Your task to perform on an android device: turn on improve location accuracy Image 0: 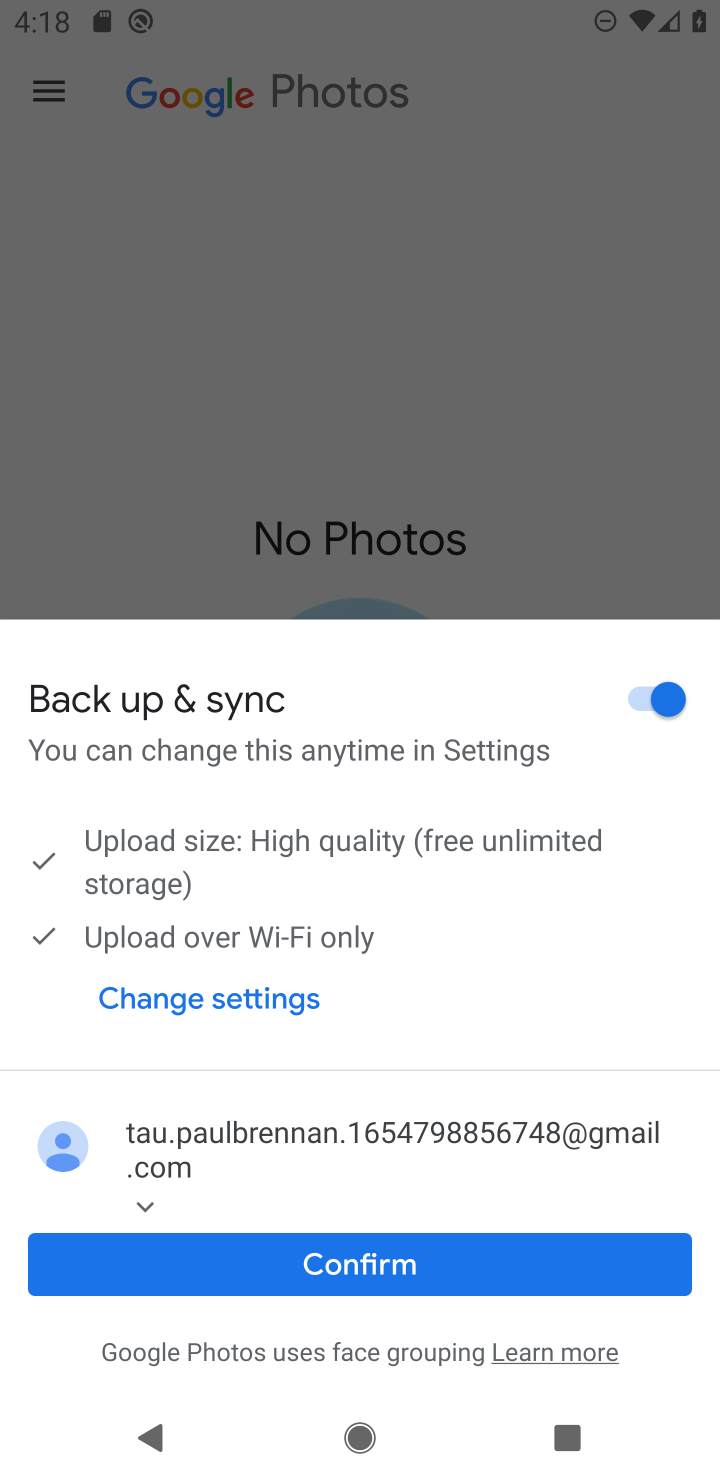
Step 0: press home button
Your task to perform on an android device: turn on improve location accuracy Image 1: 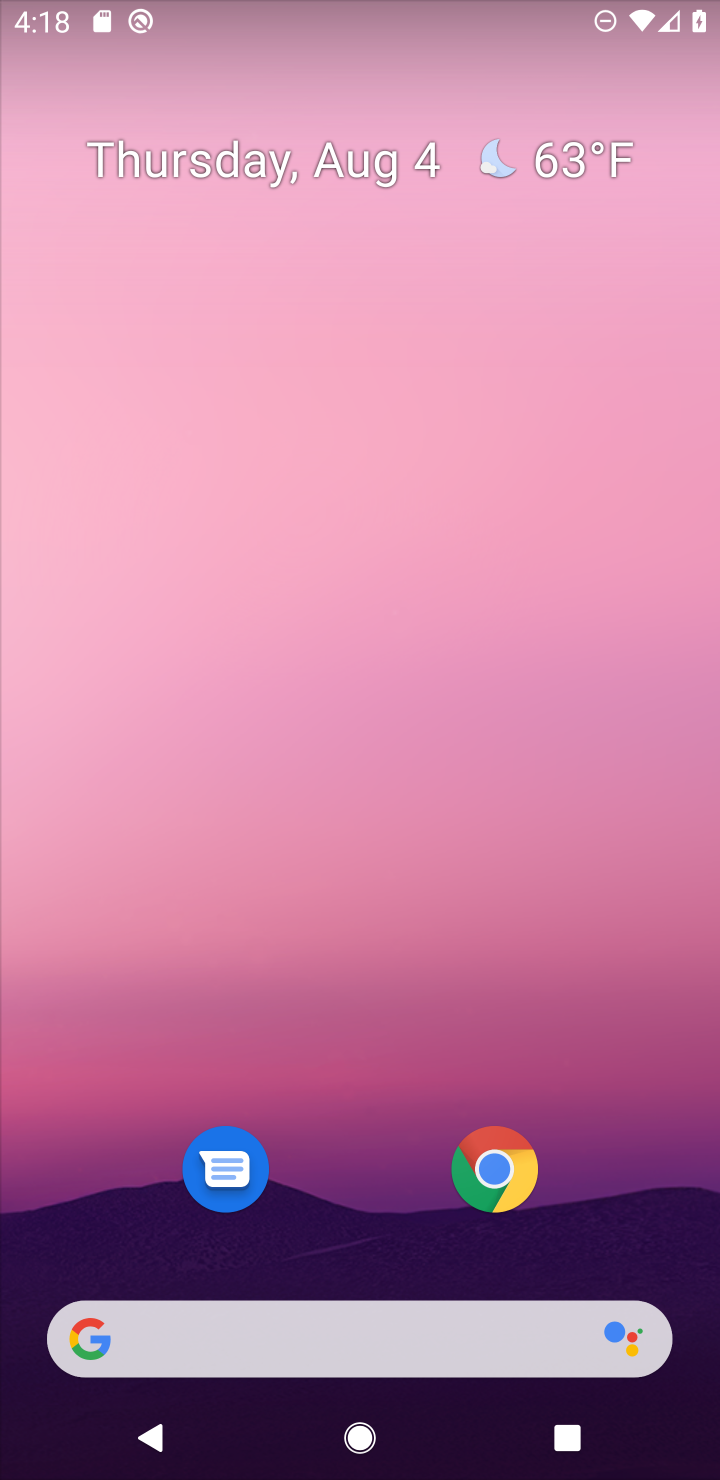
Step 1: drag from (412, 1156) to (469, 177)
Your task to perform on an android device: turn on improve location accuracy Image 2: 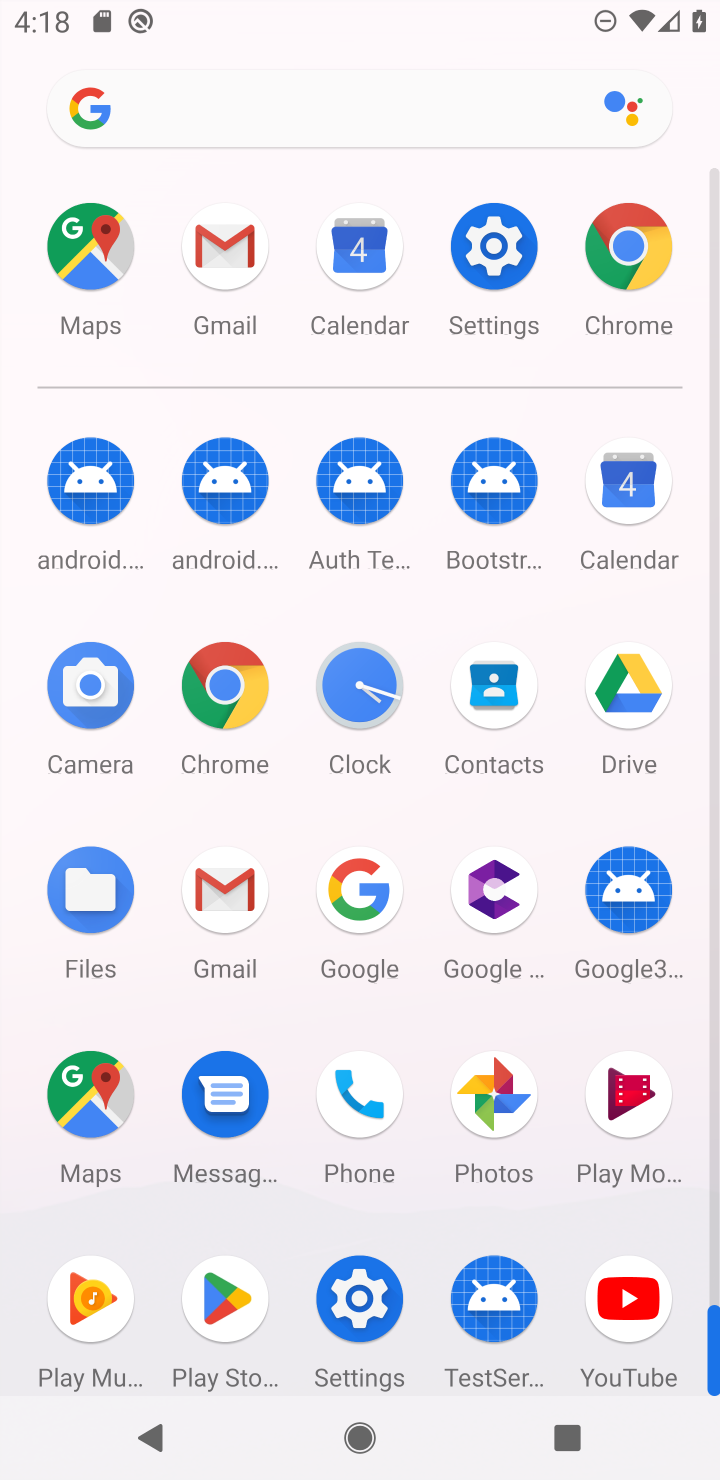
Step 2: click (510, 257)
Your task to perform on an android device: turn on improve location accuracy Image 3: 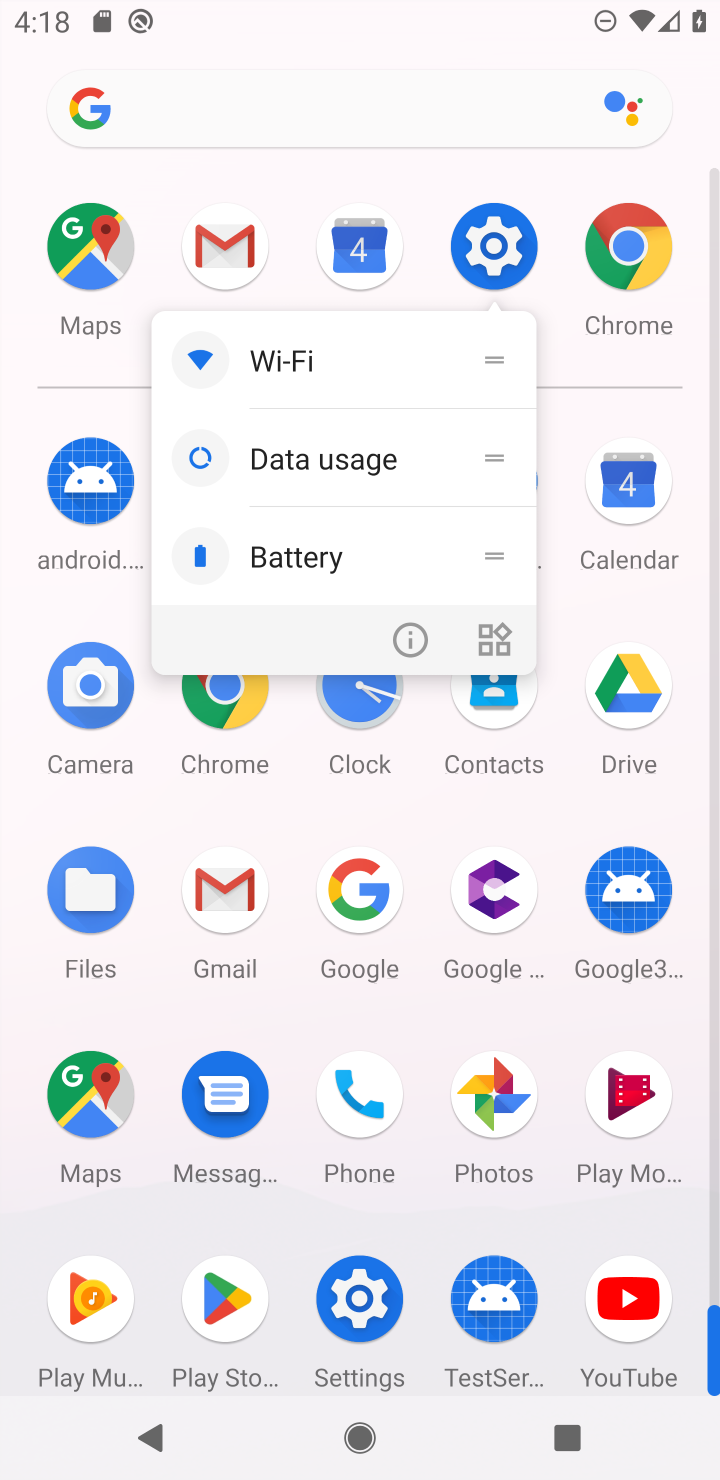
Step 3: click (508, 257)
Your task to perform on an android device: turn on improve location accuracy Image 4: 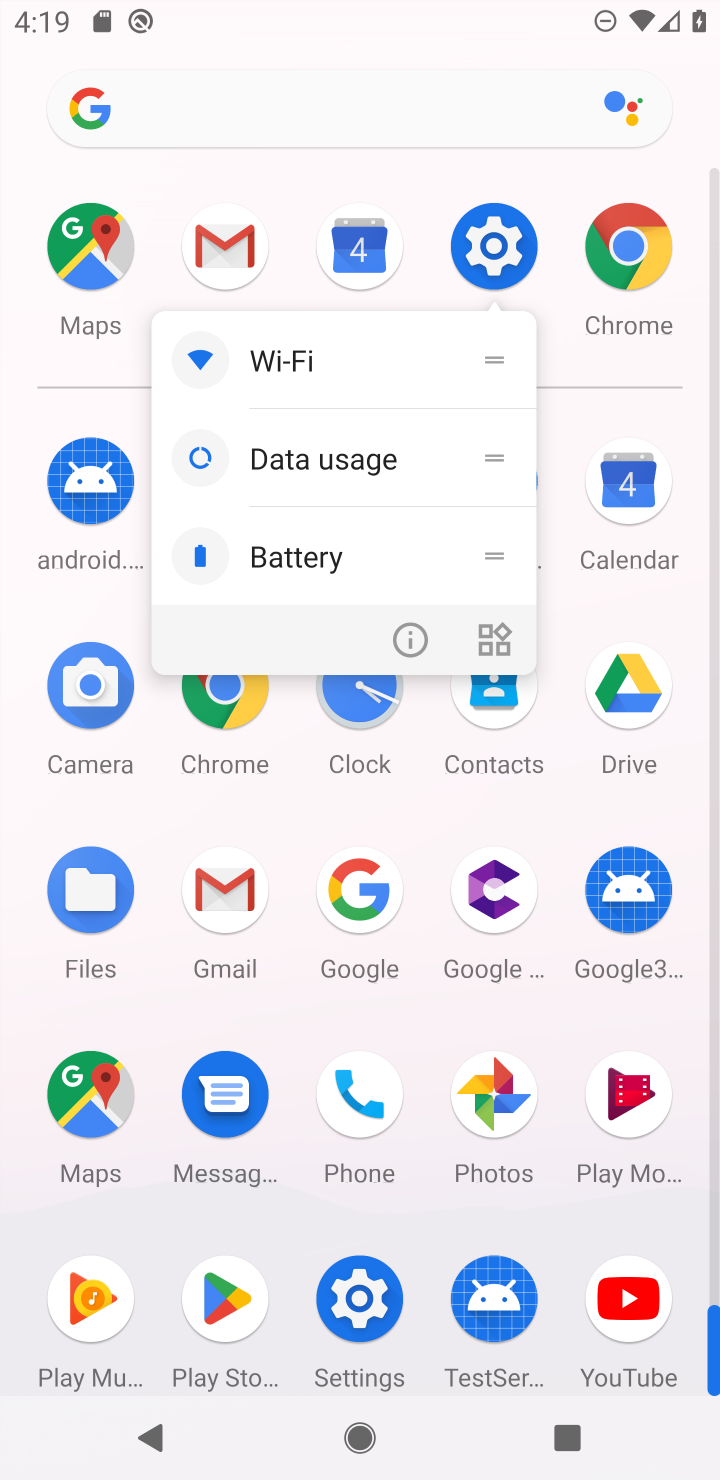
Step 4: click (484, 251)
Your task to perform on an android device: turn on improve location accuracy Image 5: 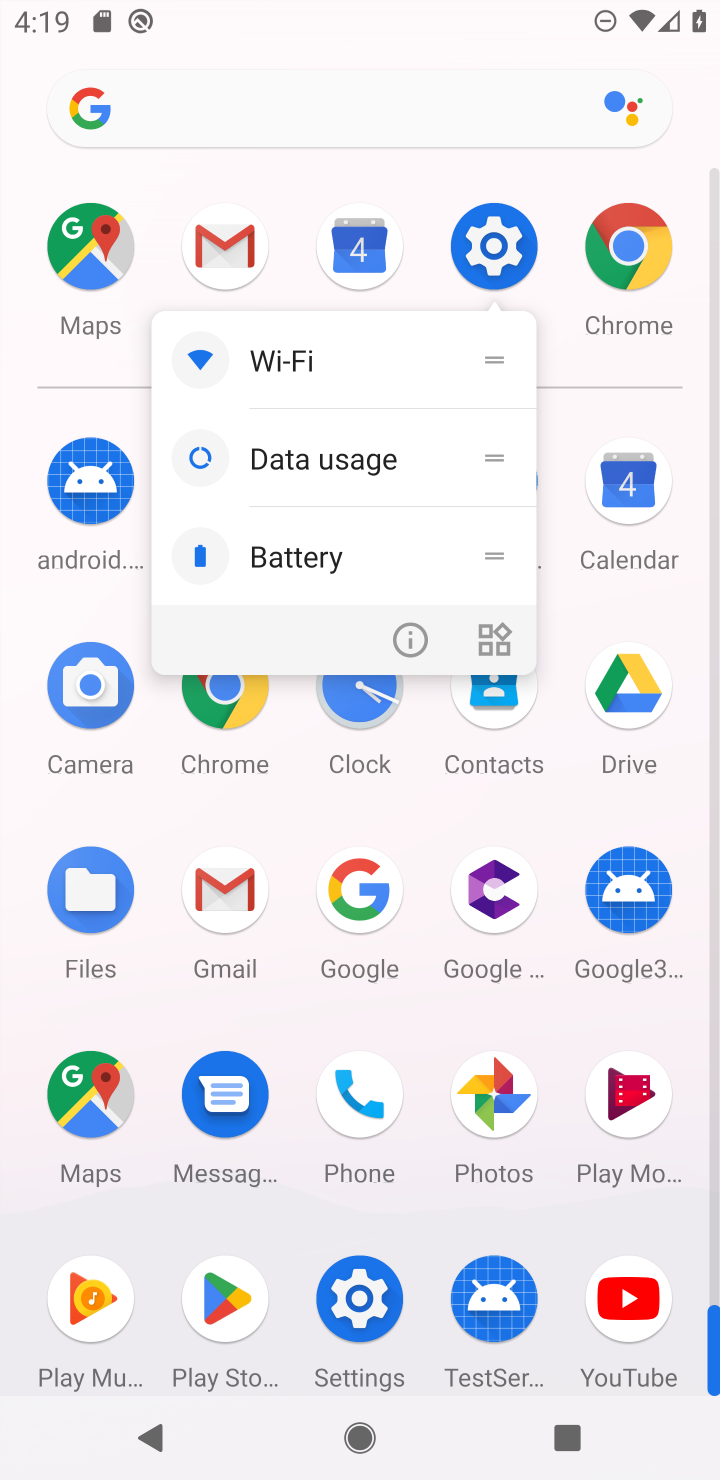
Step 5: click (475, 247)
Your task to perform on an android device: turn on improve location accuracy Image 6: 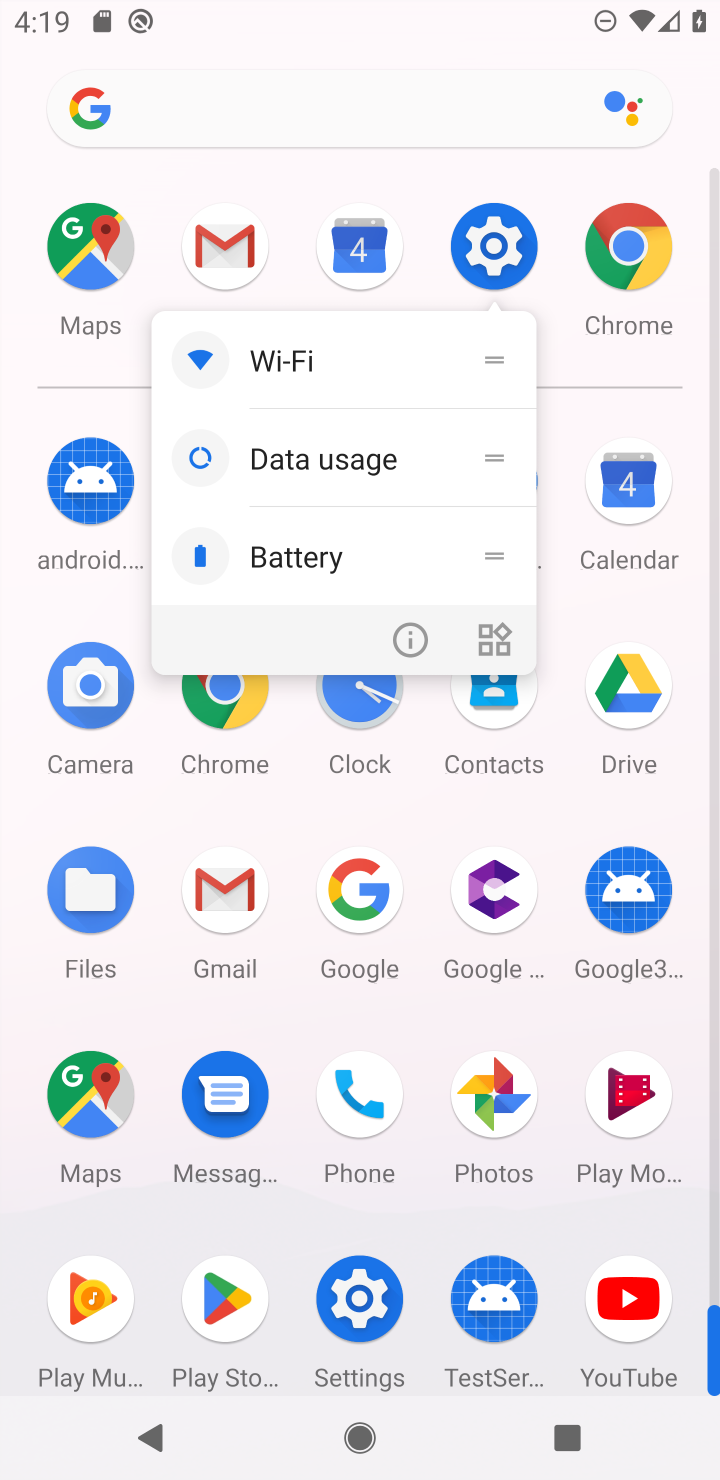
Step 6: click (475, 245)
Your task to perform on an android device: turn on improve location accuracy Image 7: 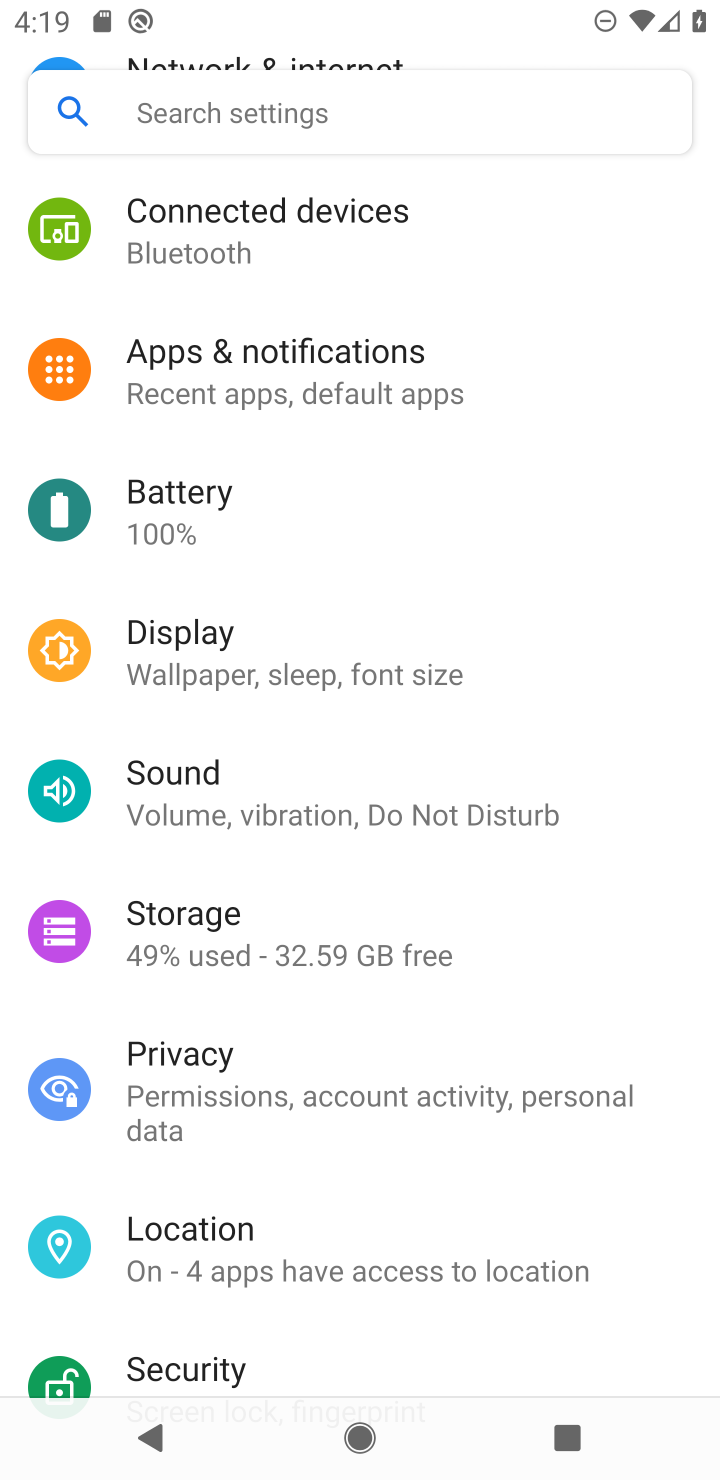
Step 7: click (304, 1263)
Your task to perform on an android device: turn on improve location accuracy Image 8: 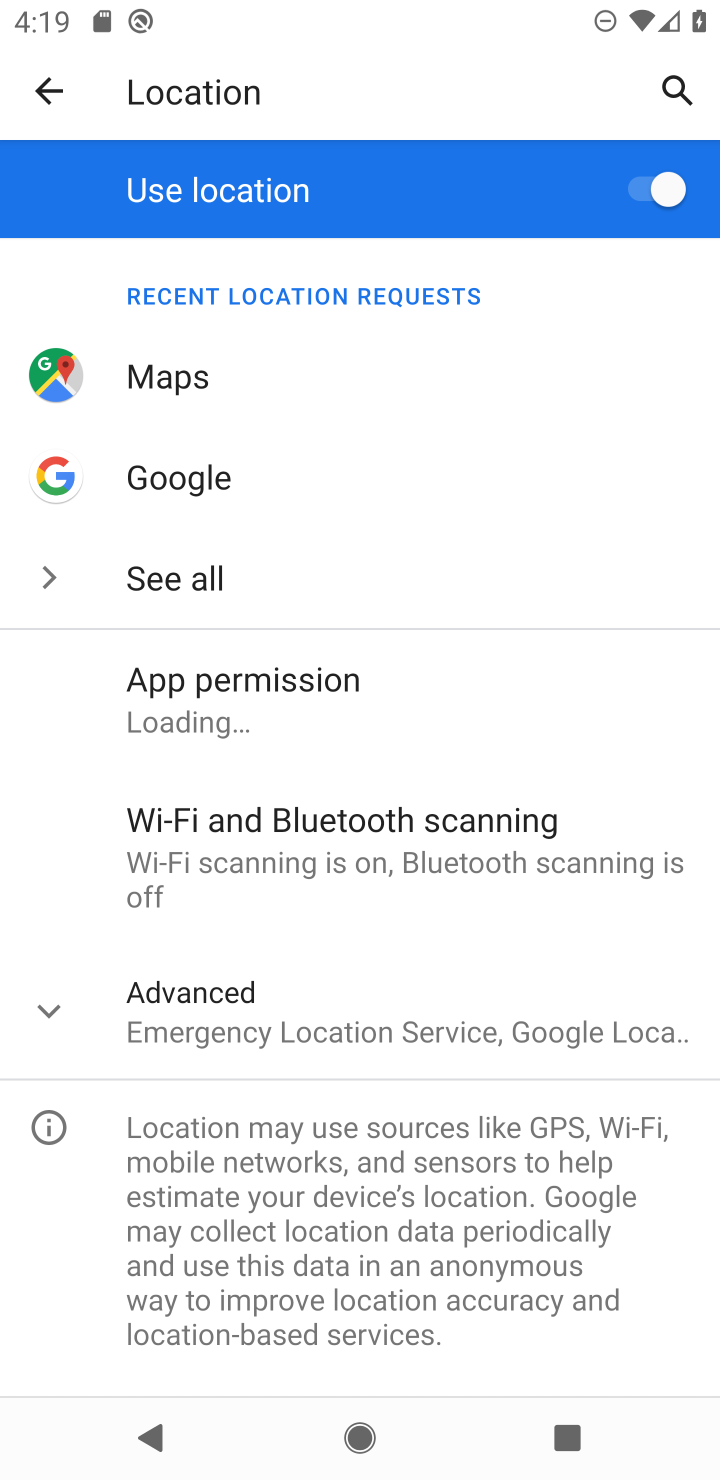
Step 8: click (231, 1028)
Your task to perform on an android device: turn on improve location accuracy Image 9: 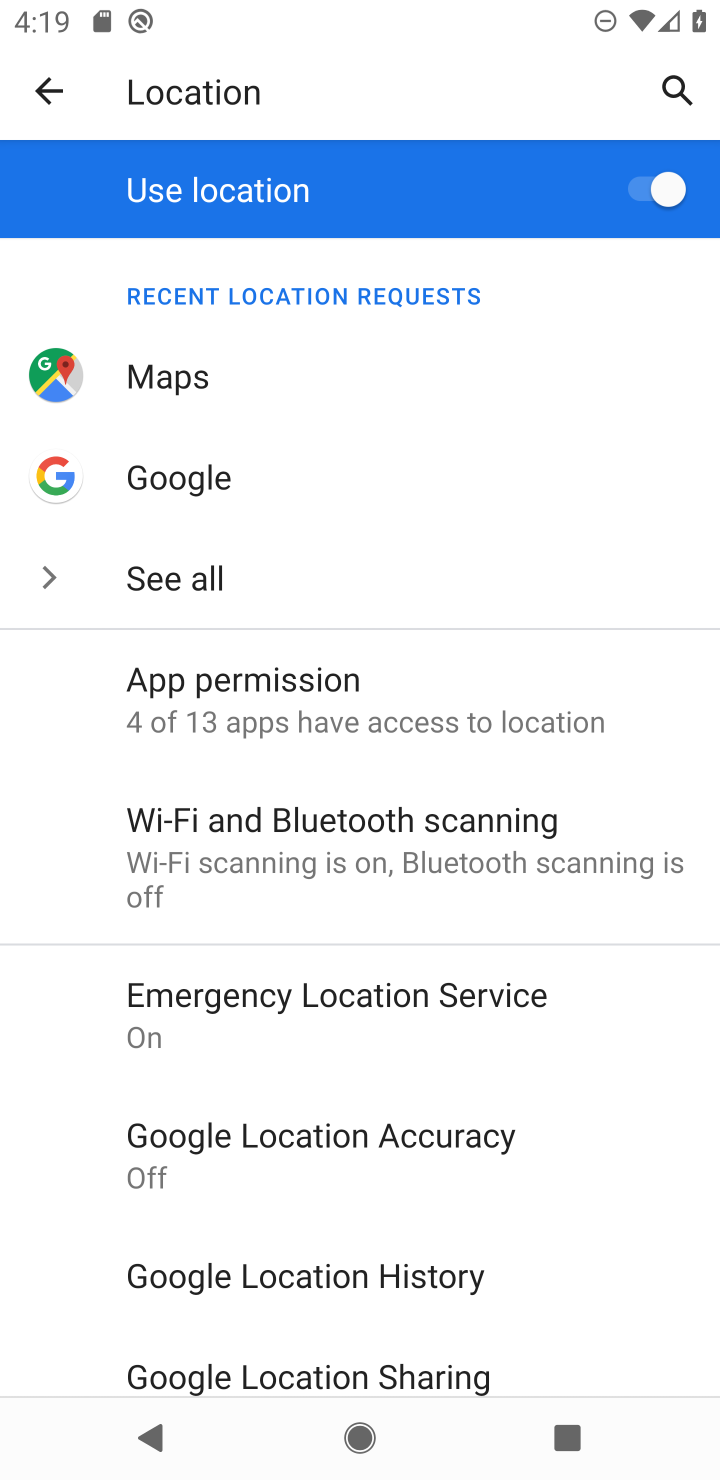
Step 9: click (322, 1153)
Your task to perform on an android device: turn on improve location accuracy Image 10: 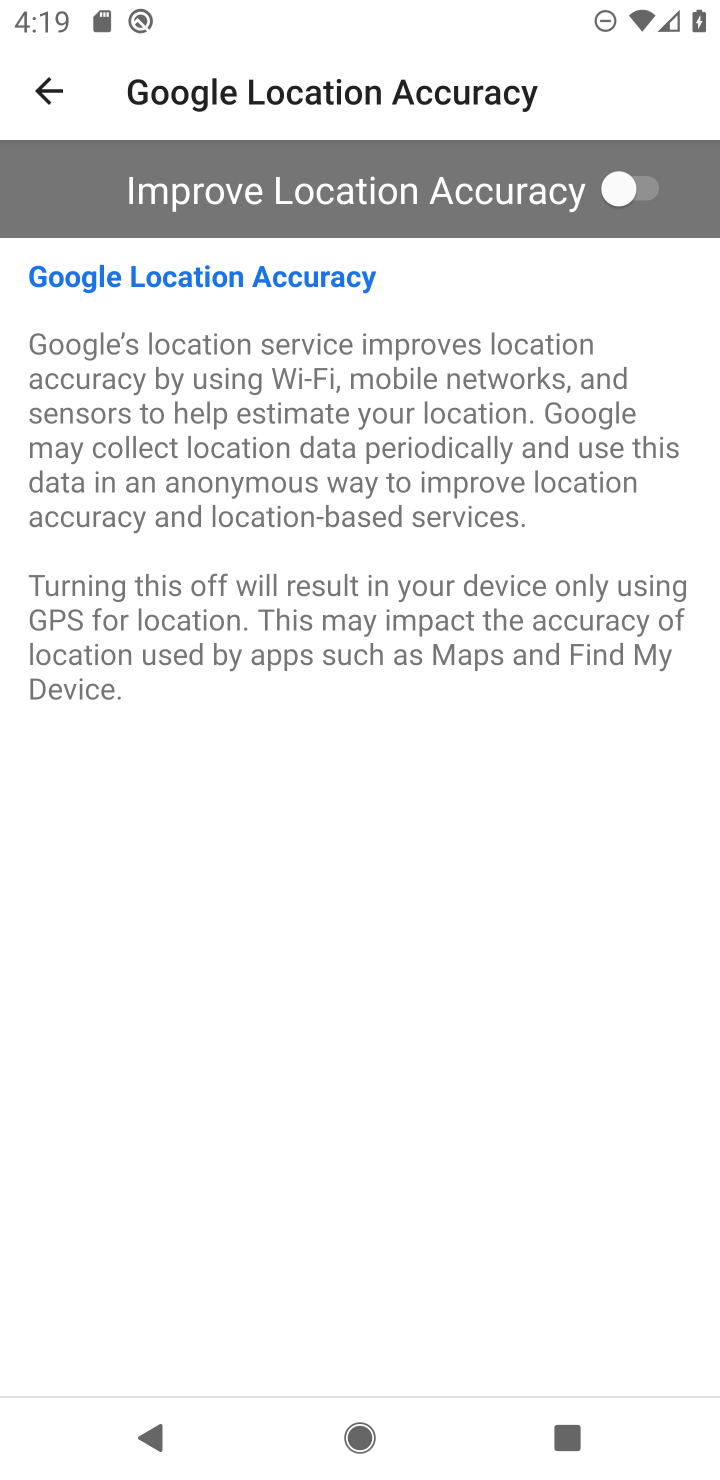
Step 10: click (665, 203)
Your task to perform on an android device: turn on improve location accuracy Image 11: 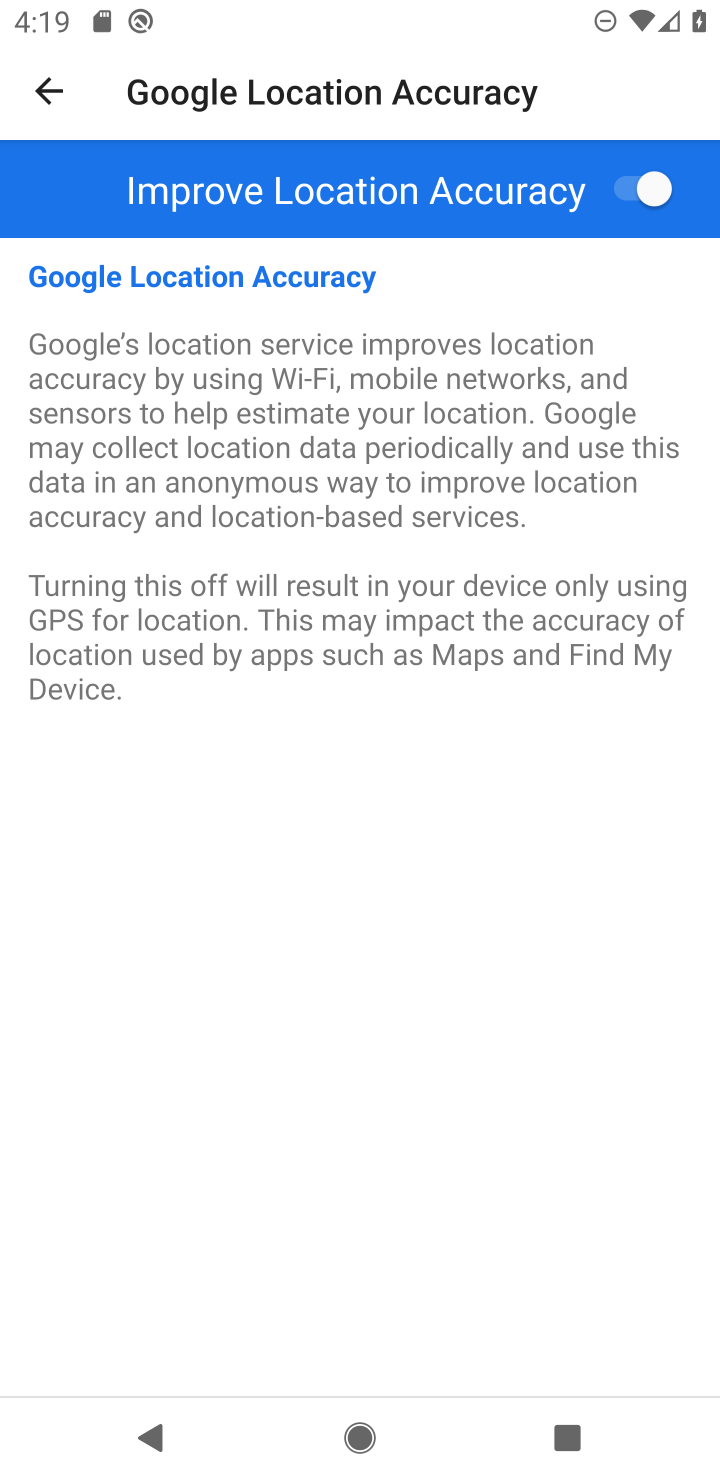
Step 11: task complete